Your task to perform on an android device: Open Wikipedia Image 0: 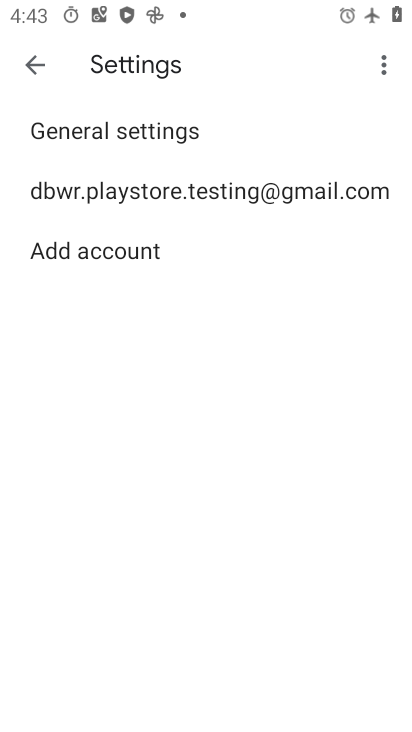
Step 0: click (396, 284)
Your task to perform on an android device: Open Wikipedia Image 1: 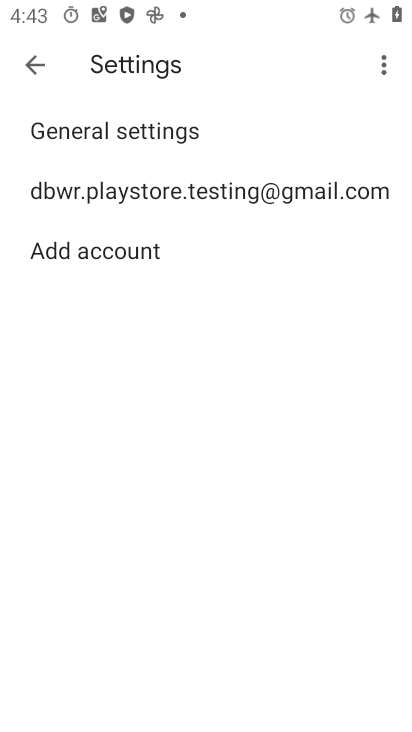
Step 1: press home button
Your task to perform on an android device: Open Wikipedia Image 2: 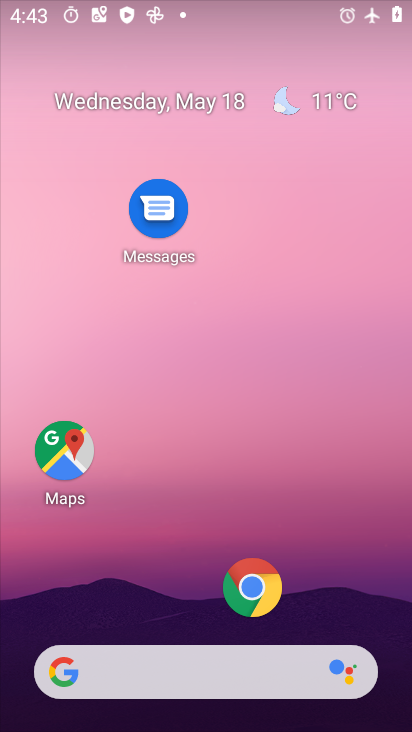
Step 2: drag from (197, 484) to (275, 40)
Your task to perform on an android device: Open Wikipedia Image 3: 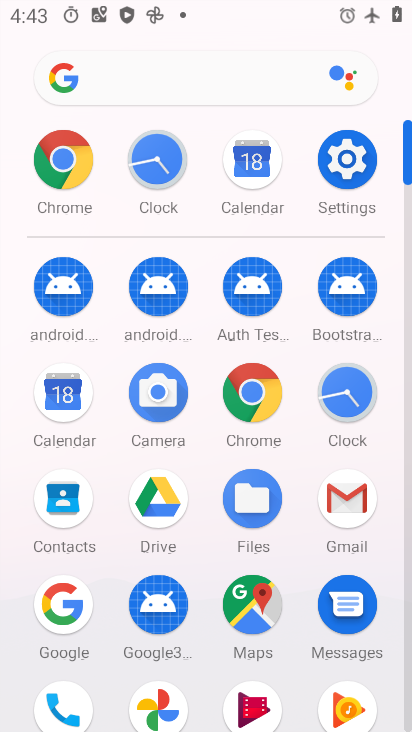
Step 3: click (69, 151)
Your task to perform on an android device: Open Wikipedia Image 4: 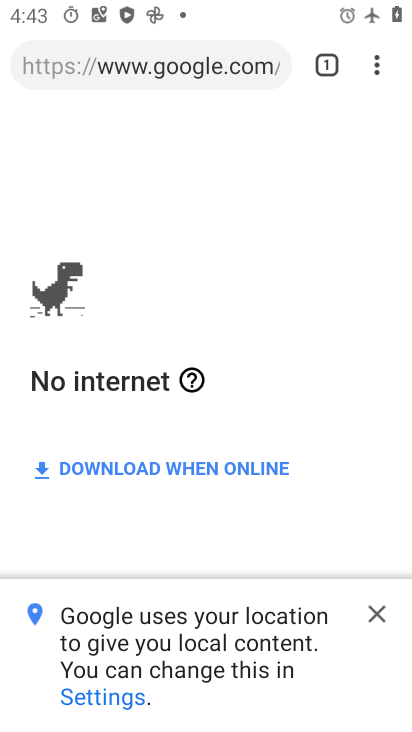
Step 4: click (231, 70)
Your task to perform on an android device: Open Wikipedia Image 5: 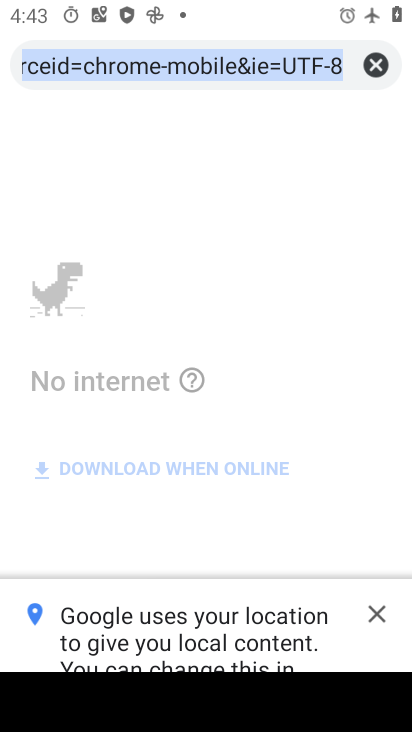
Step 5: type "wikipedia"
Your task to perform on an android device: Open Wikipedia Image 6: 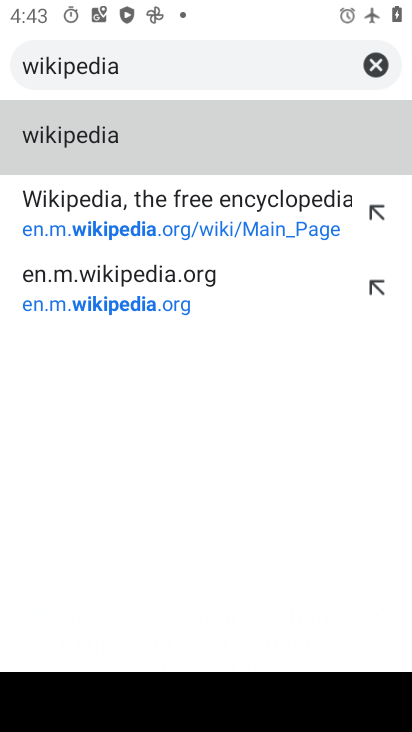
Step 6: click (134, 217)
Your task to perform on an android device: Open Wikipedia Image 7: 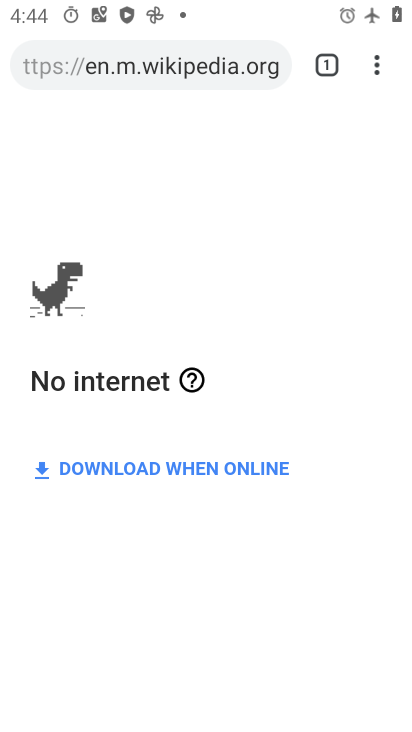
Step 7: task complete